Your task to perform on an android device: Go to accessibility settings Image 0: 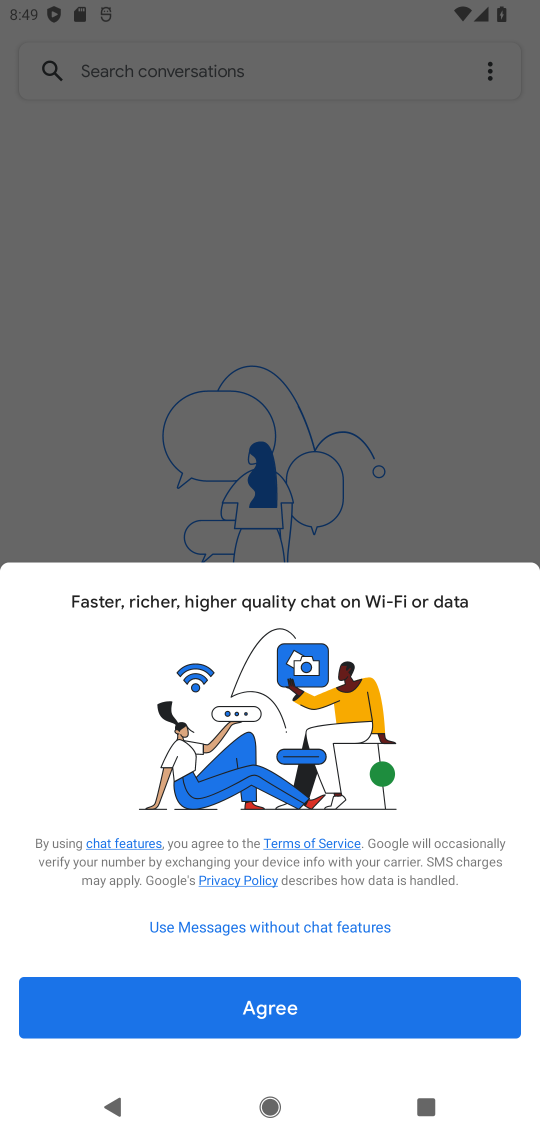
Step 0: press home button
Your task to perform on an android device: Go to accessibility settings Image 1: 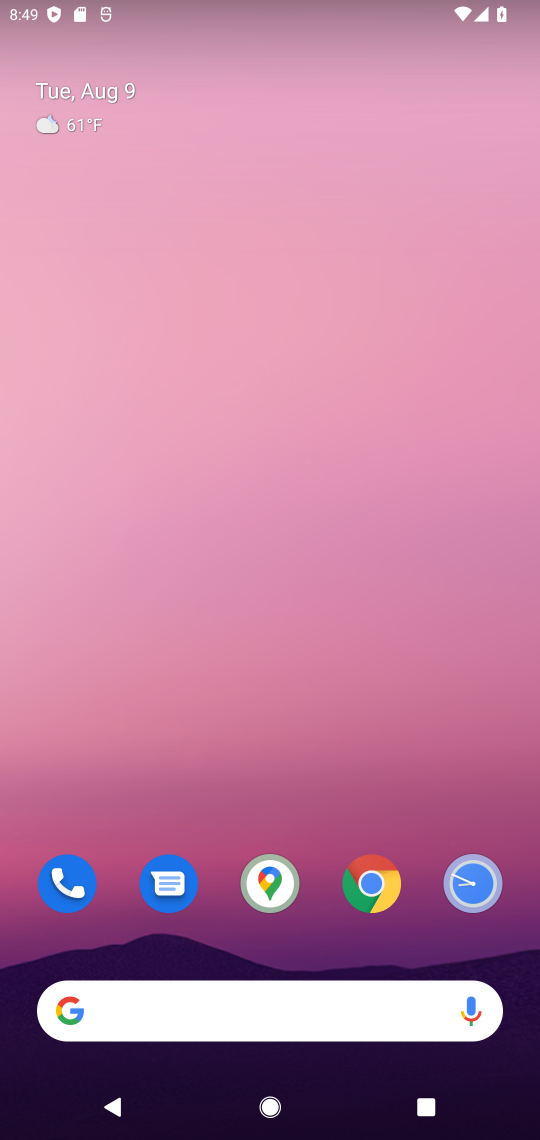
Step 1: drag from (386, 744) to (261, 84)
Your task to perform on an android device: Go to accessibility settings Image 2: 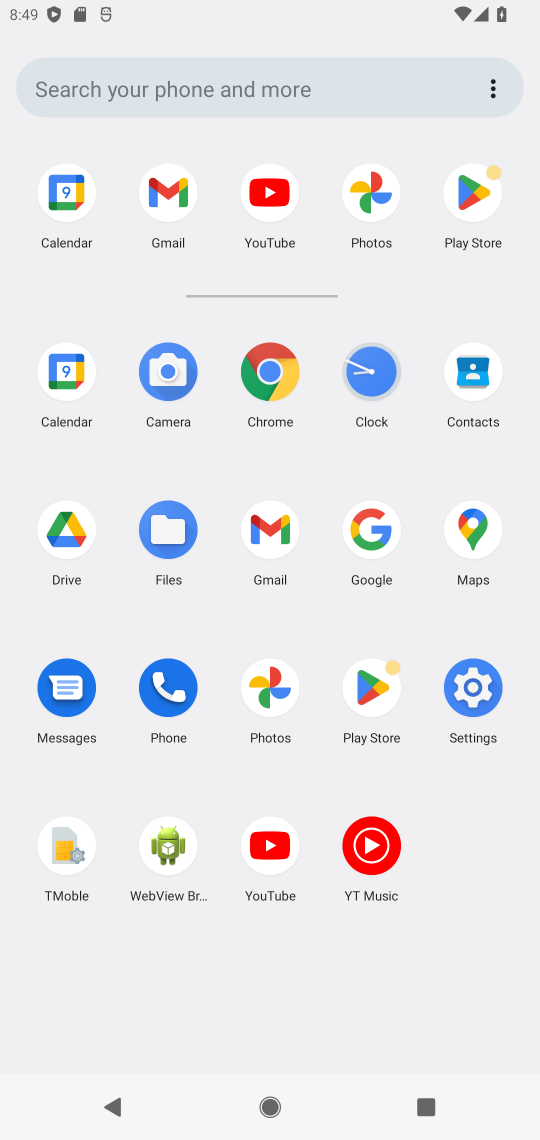
Step 2: click (485, 680)
Your task to perform on an android device: Go to accessibility settings Image 3: 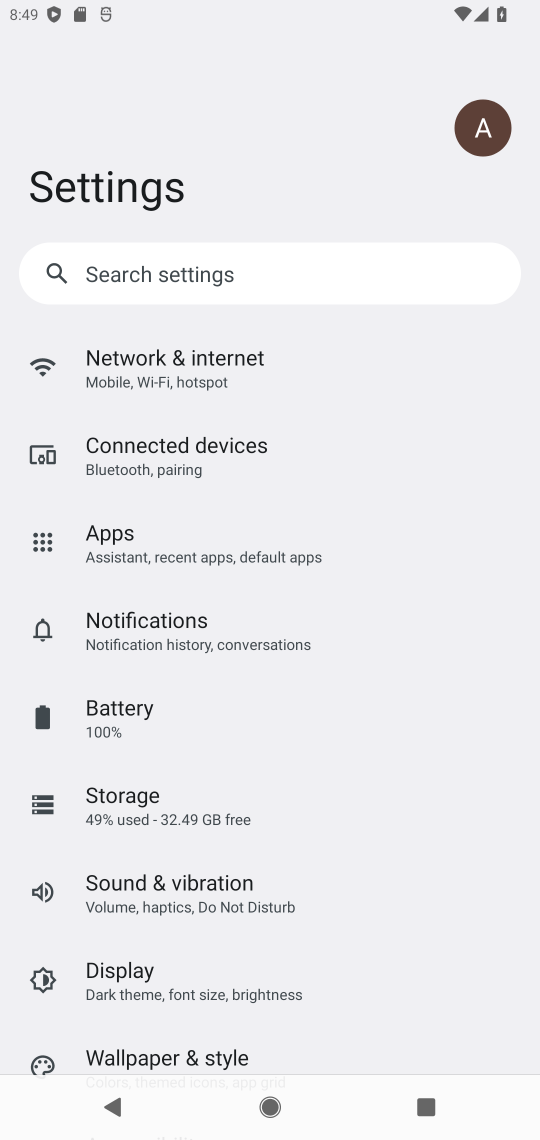
Step 3: drag from (355, 828) to (400, 304)
Your task to perform on an android device: Go to accessibility settings Image 4: 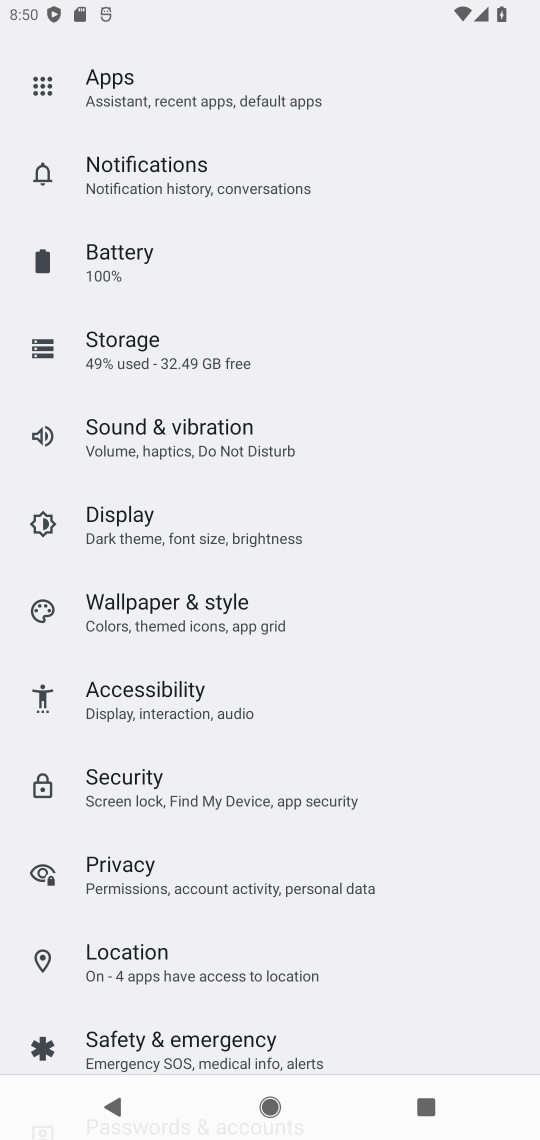
Step 4: click (181, 714)
Your task to perform on an android device: Go to accessibility settings Image 5: 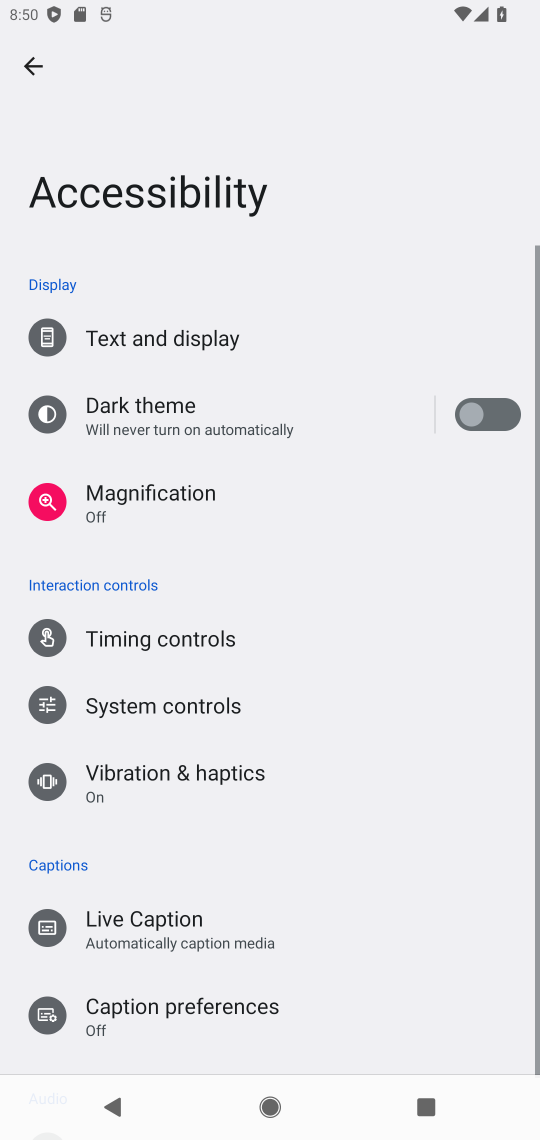
Step 5: task complete